Your task to perform on an android device: clear history in the chrome app Image 0: 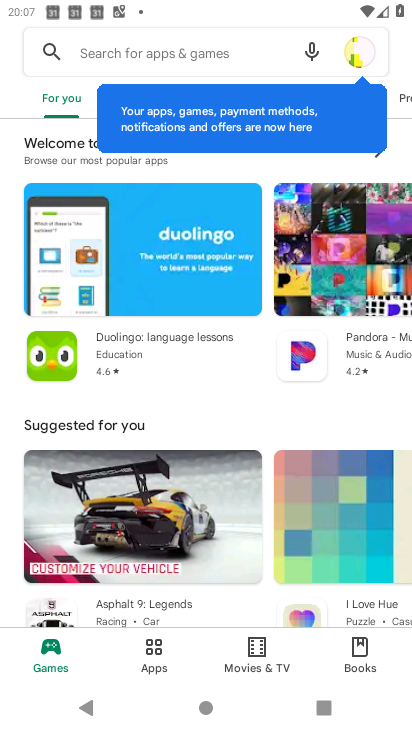
Step 0: press home button
Your task to perform on an android device: clear history in the chrome app Image 1: 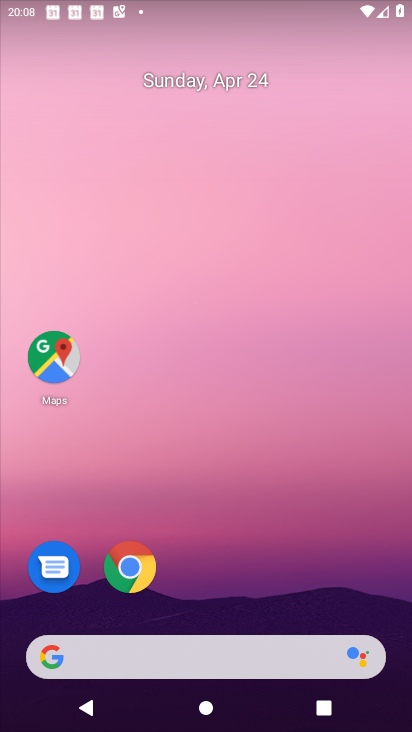
Step 1: drag from (264, 697) to (237, 239)
Your task to perform on an android device: clear history in the chrome app Image 2: 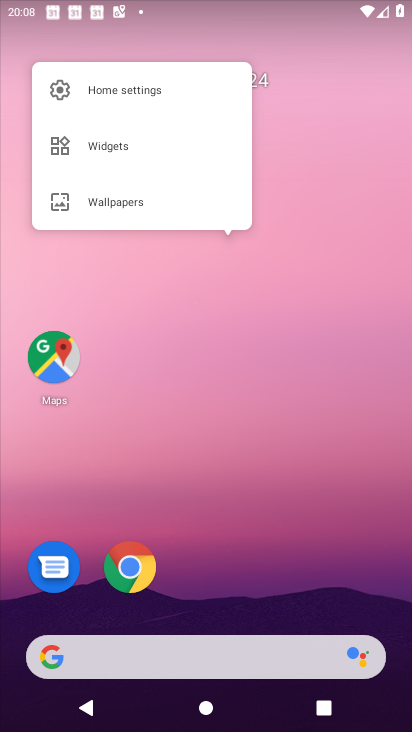
Step 2: click (241, 379)
Your task to perform on an android device: clear history in the chrome app Image 3: 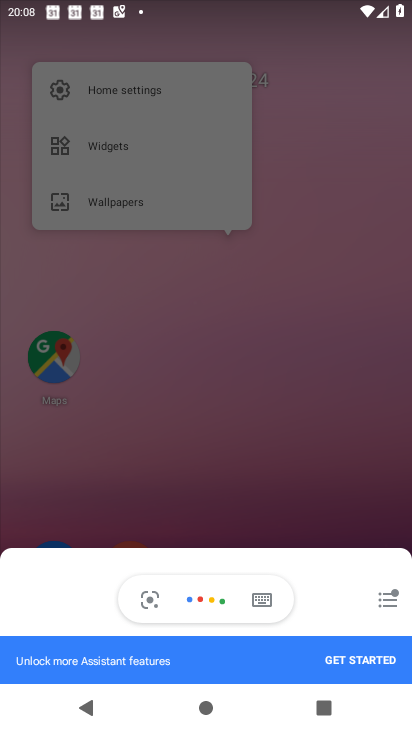
Step 3: click (323, 239)
Your task to perform on an android device: clear history in the chrome app Image 4: 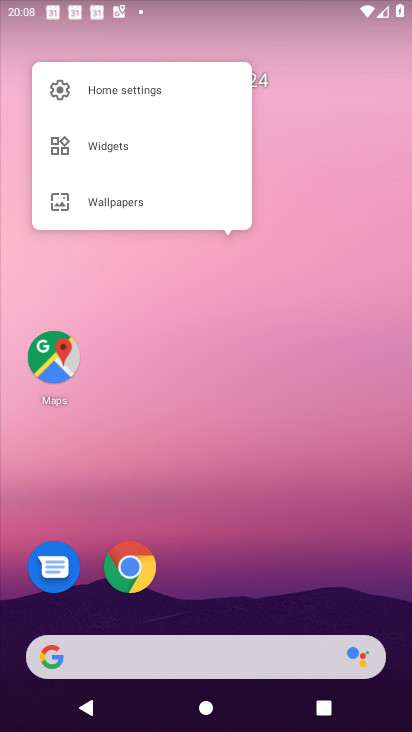
Step 4: drag from (307, 672) to (322, 273)
Your task to perform on an android device: clear history in the chrome app Image 5: 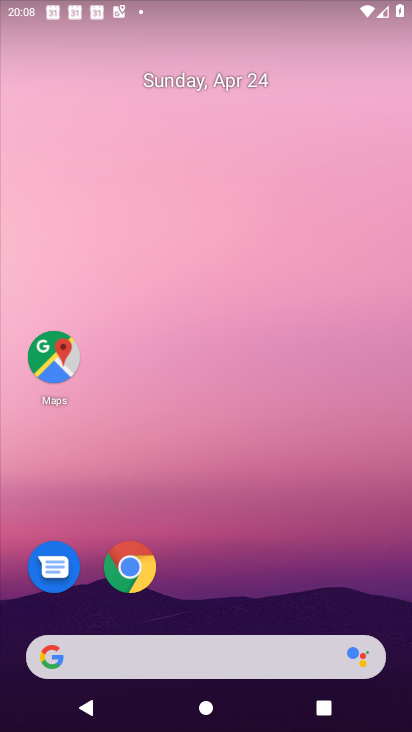
Step 5: drag from (270, 666) to (299, 117)
Your task to perform on an android device: clear history in the chrome app Image 6: 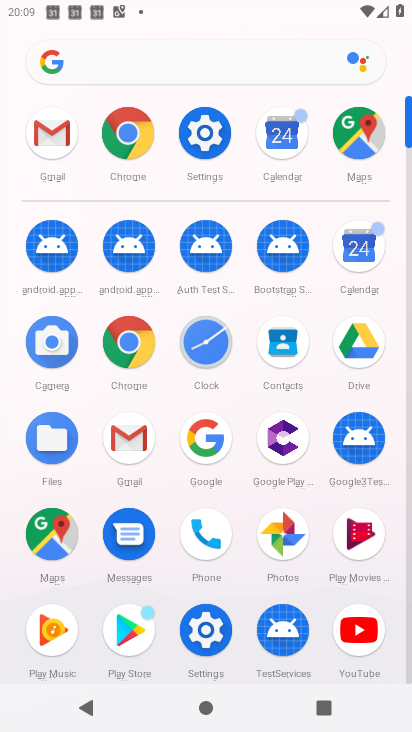
Step 6: click (134, 152)
Your task to perform on an android device: clear history in the chrome app Image 7: 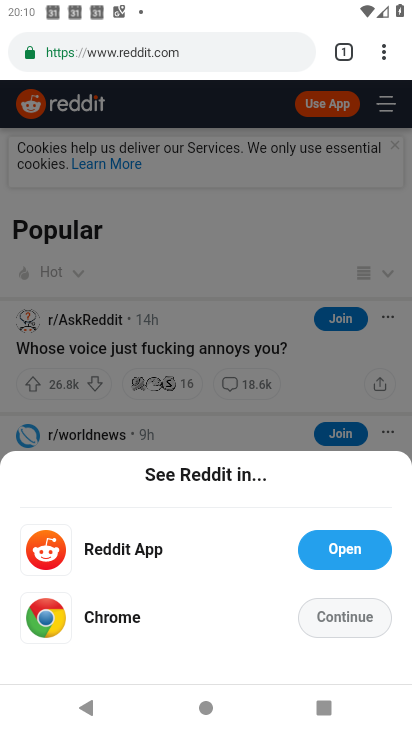
Step 7: click (241, 364)
Your task to perform on an android device: clear history in the chrome app Image 8: 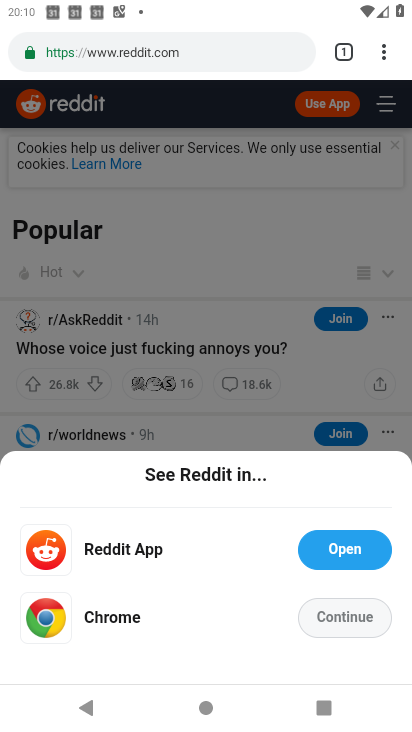
Step 8: click (387, 42)
Your task to perform on an android device: clear history in the chrome app Image 9: 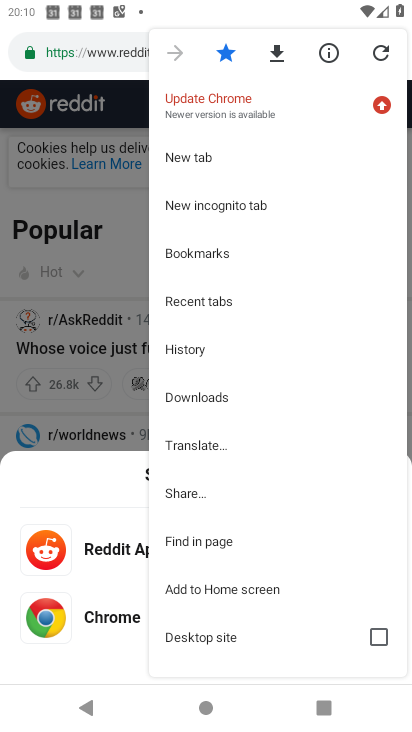
Step 9: click (199, 355)
Your task to perform on an android device: clear history in the chrome app Image 10: 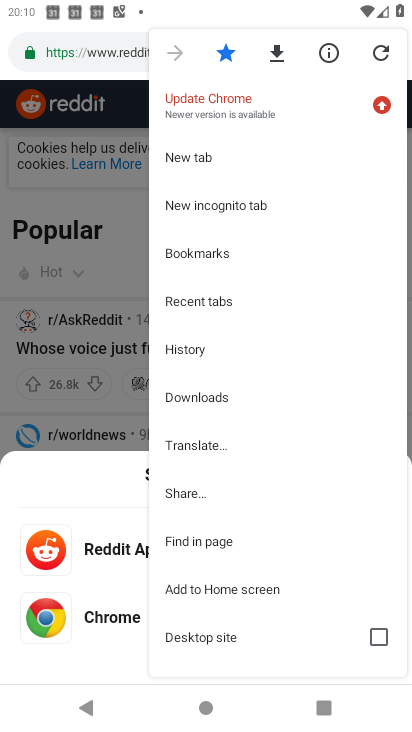
Step 10: click (199, 355)
Your task to perform on an android device: clear history in the chrome app Image 11: 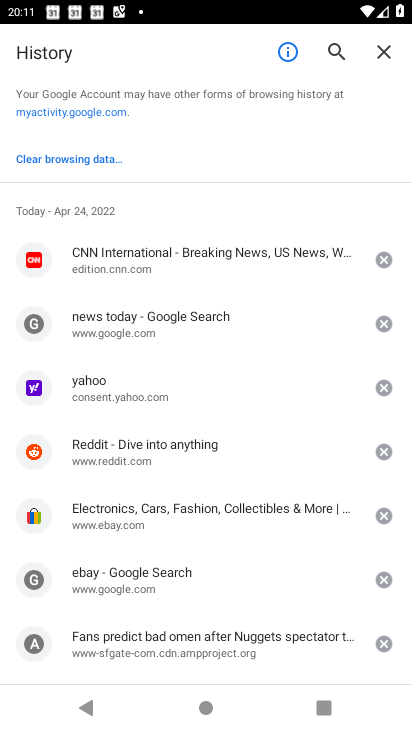
Step 11: click (58, 148)
Your task to perform on an android device: clear history in the chrome app Image 12: 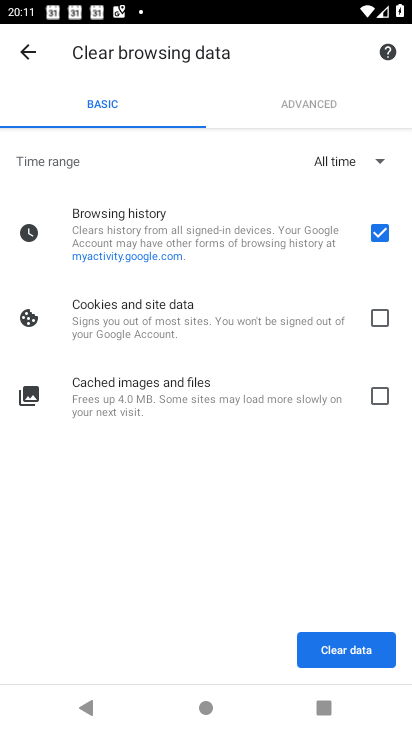
Step 12: click (347, 634)
Your task to perform on an android device: clear history in the chrome app Image 13: 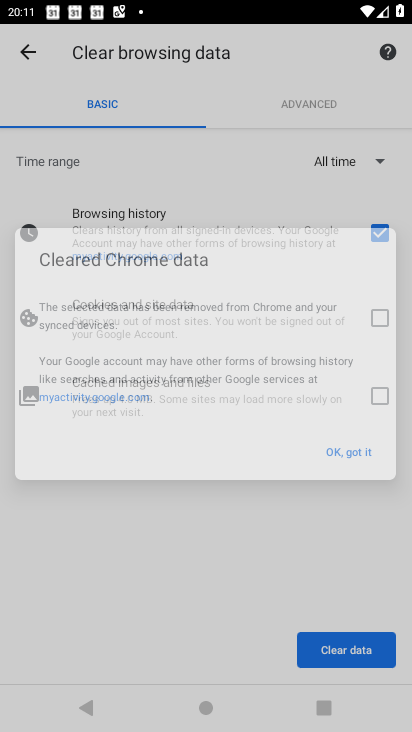
Step 13: task complete